Your task to perform on an android device: Turn on the flashlight Image 0: 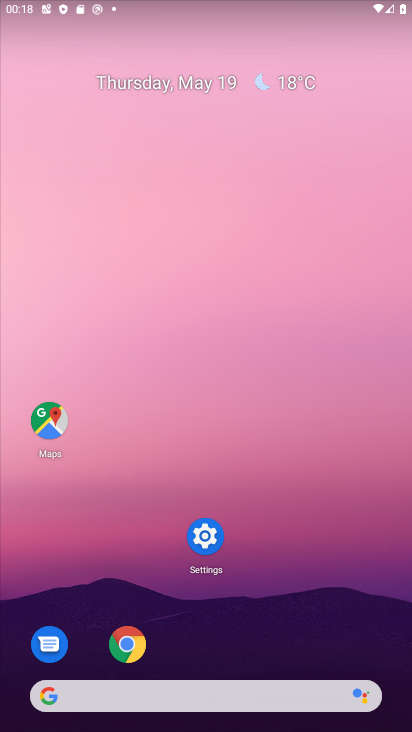
Step 0: drag from (308, 8) to (219, 535)
Your task to perform on an android device: Turn on the flashlight Image 1: 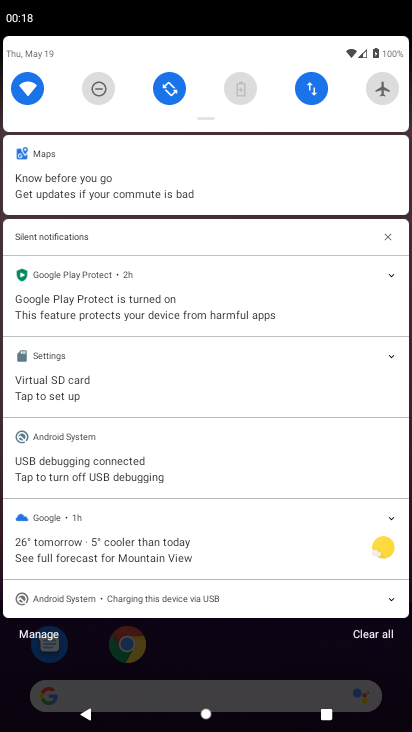
Step 1: task complete